Your task to perform on an android device: empty trash in the gmail app Image 0: 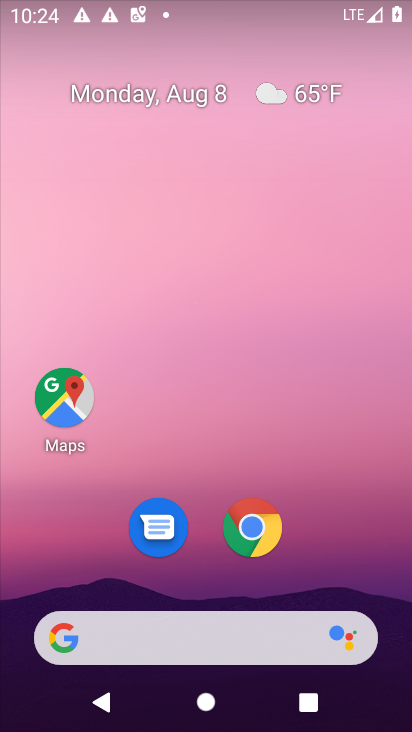
Step 0: drag from (386, 696) to (372, 282)
Your task to perform on an android device: empty trash in the gmail app Image 1: 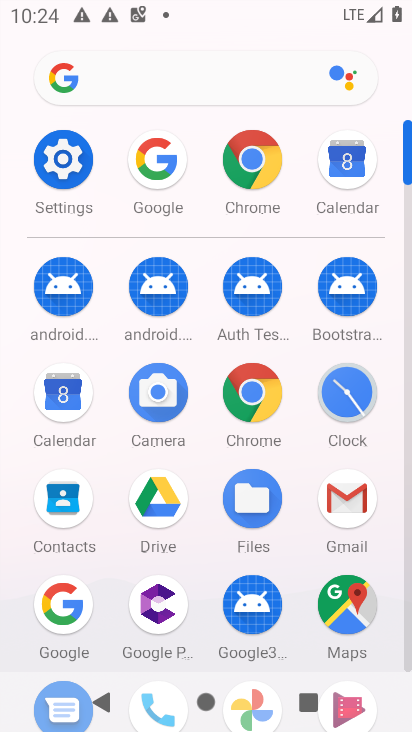
Step 1: click (344, 498)
Your task to perform on an android device: empty trash in the gmail app Image 2: 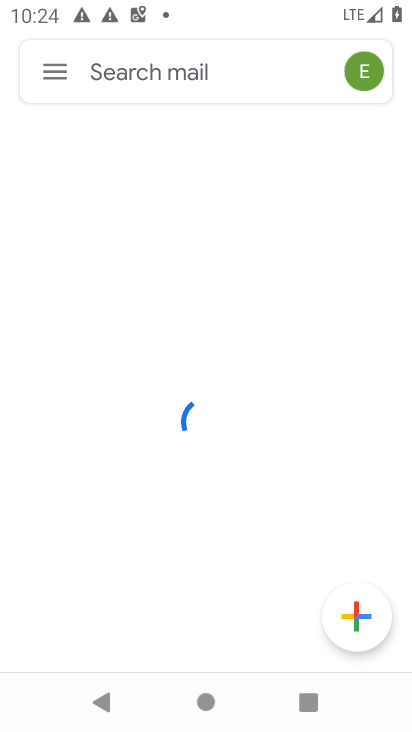
Step 2: click (47, 71)
Your task to perform on an android device: empty trash in the gmail app Image 3: 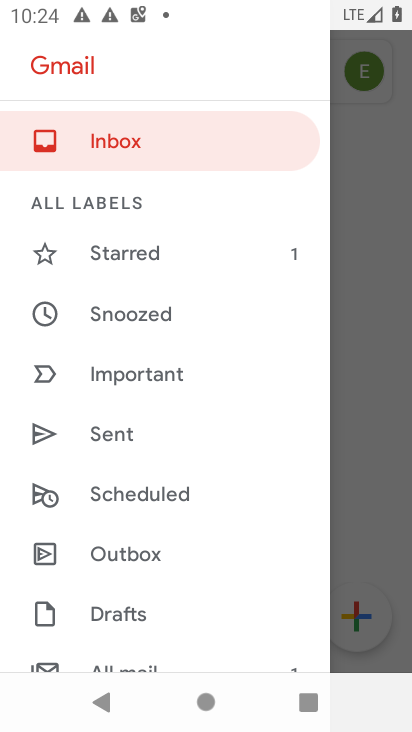
Step 3: drag from (207, 614) to (222, 260)
Your task to perform on an android device: empty trash in the gmail app Image 4: 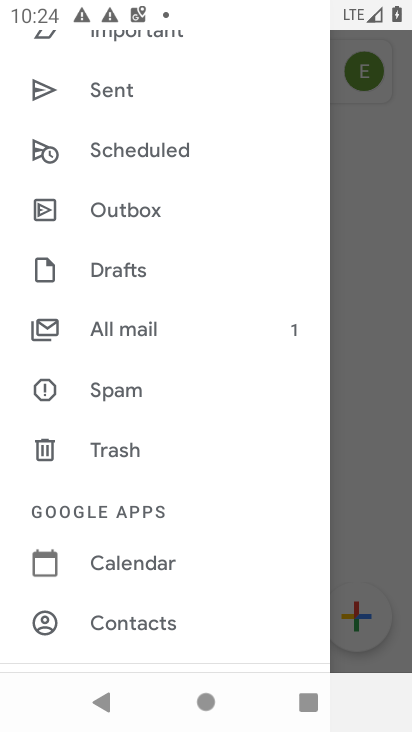
Step 4: click (113, 448)
Your task to perform on an android device: empty trash in the gmail app Image 5: 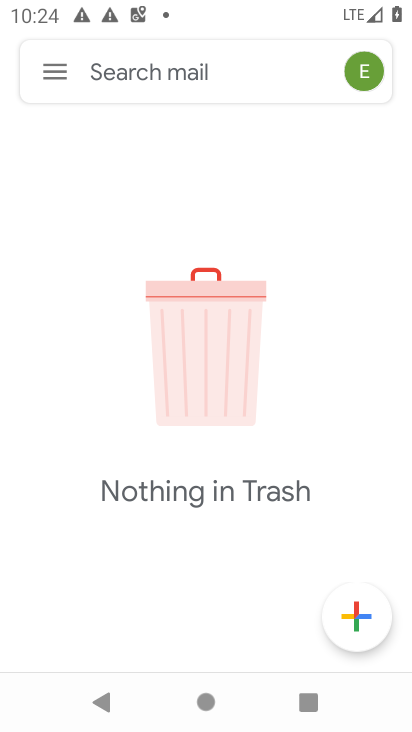
Step 5: task complete